Your task to perform on an android device: change notifications settings Image 0: 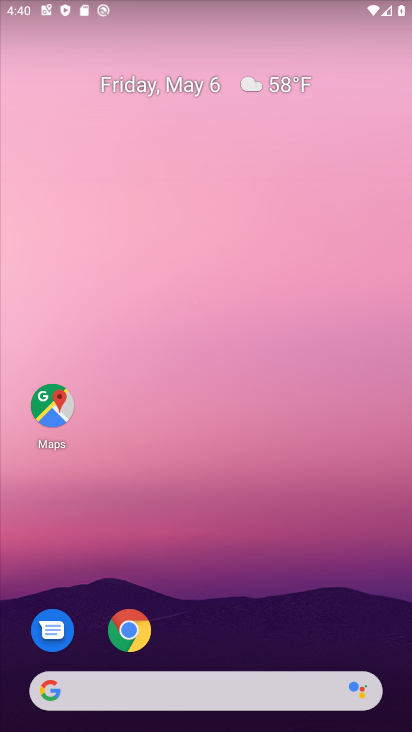
Step 0: drag from (243, 641) to (285, 41)
Your task to perform on an android device: change notifications settings Image 1: 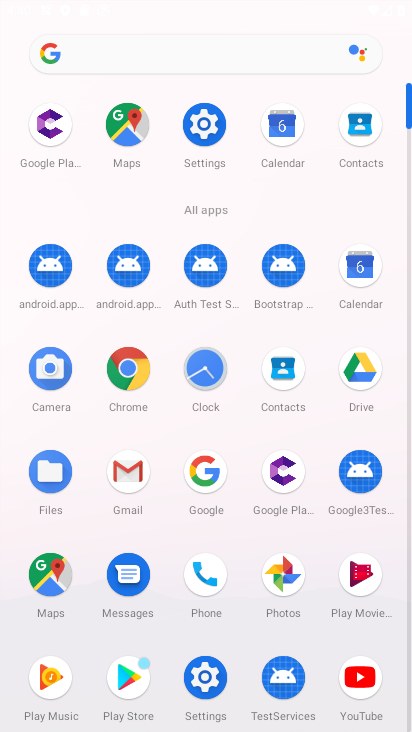
Step 1: click (211, 676)
Your task to perform on an android device: change notifications settings Image 2: 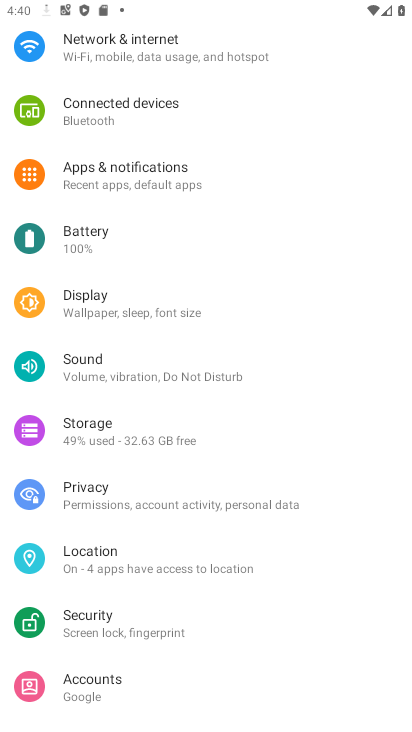
Step 2: click (182, 186)
Your task to perform on an android device: change notifications settings Image 3: 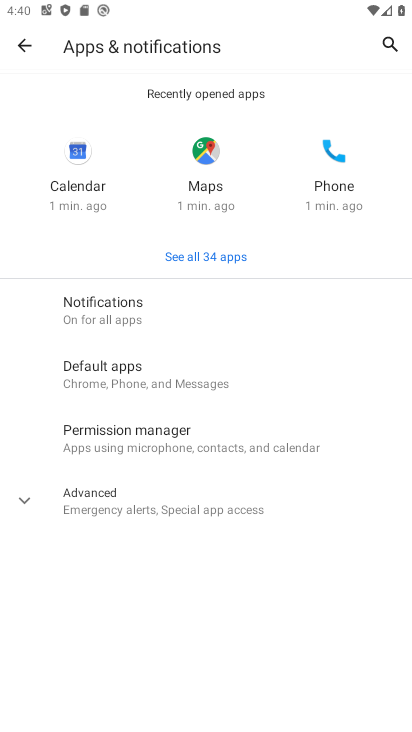
Step 3: click (160, 304)
Your task to perform on an android device: change notifications settings Image 4: 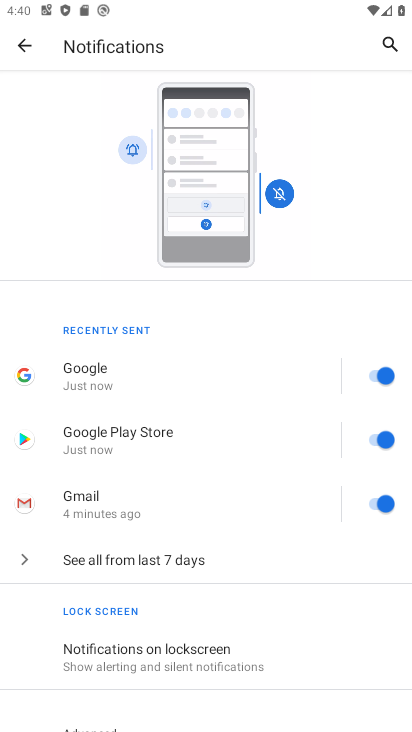
Step 4: click (175, 556)
Your task to perform on an android device: change notifications settings Image 5: 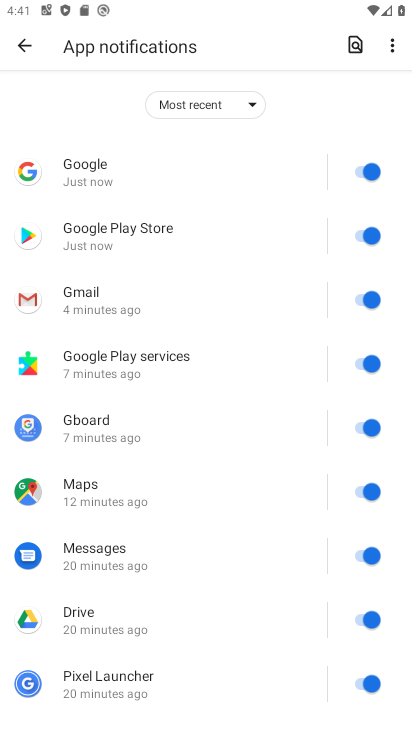
Step 5: click (365, 184)
Your task to perform on an android device: change notifications settings Image 6: 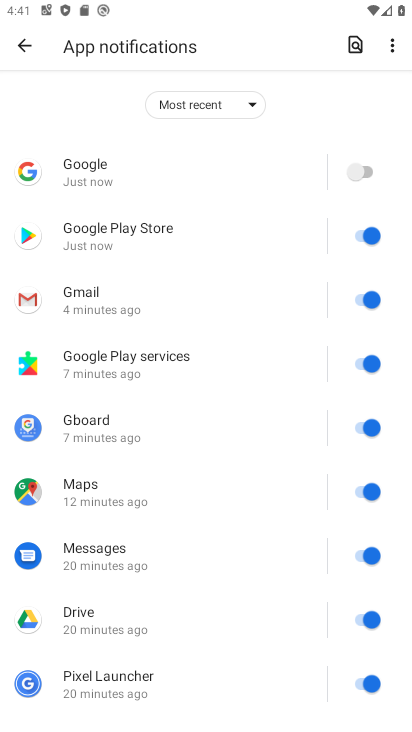
Step 6: click (354, 234)
Your task to perform on an android device: change notifications settings Image 7: 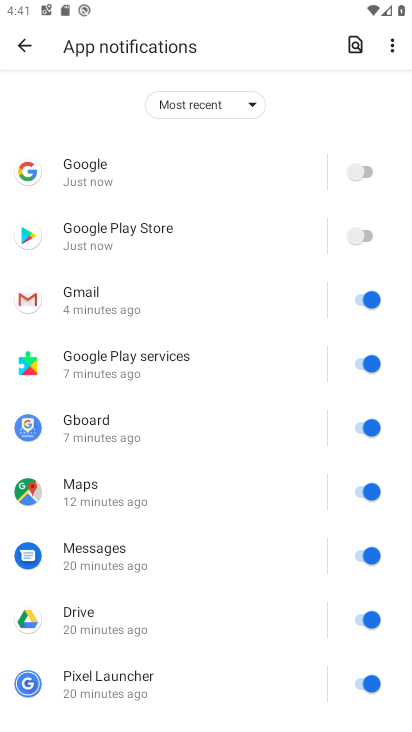
Step 7: click (355, 305)
Your task to perform on an android device: change notifications settings Image 8: 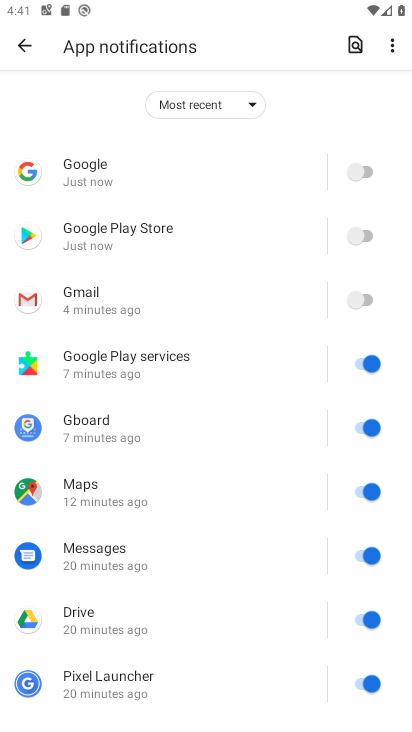
Step 8: click (374, 360)
Your task to perform on an android device: change notifications settings Image 9: 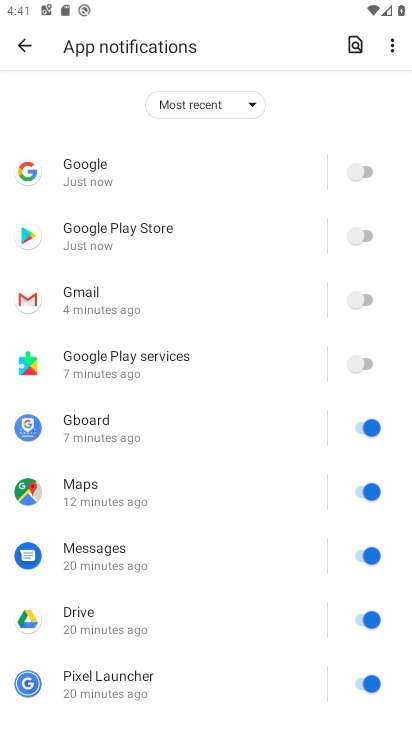
Step 9: click (366, 434)
Your task to perform on an android device: change notifications settings Image 10: 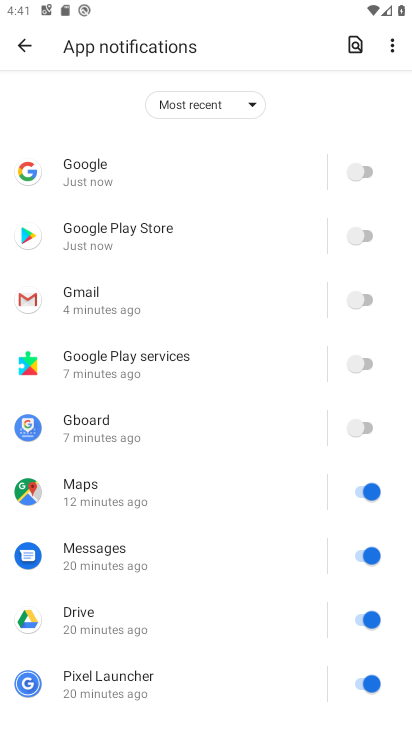
Step 10: click (362, 492)
Your task to perform on an android device: change notifications settings Image 11: 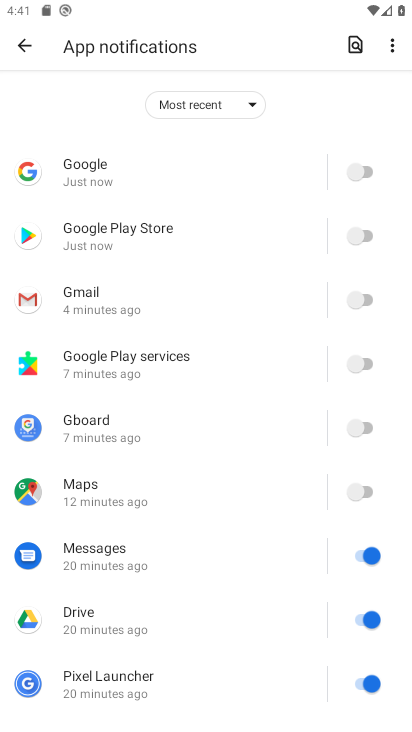
Step 11: click (363, 556)
Your task to perform on an android device: change notifications settings Image 12: 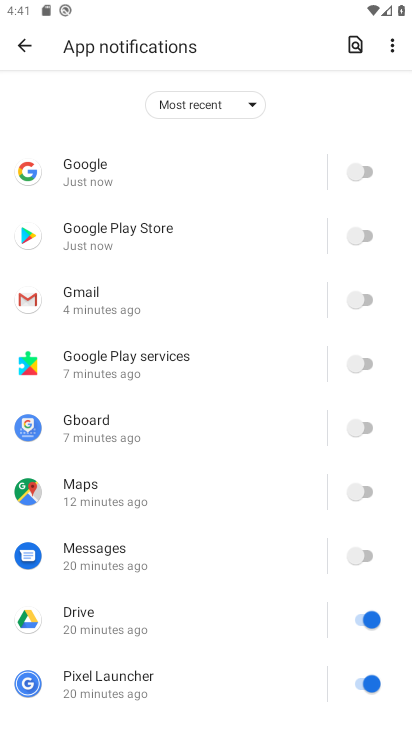
Step 12: click (367, 621)
Your task to perform on an android device: change notifications settings Image 13: 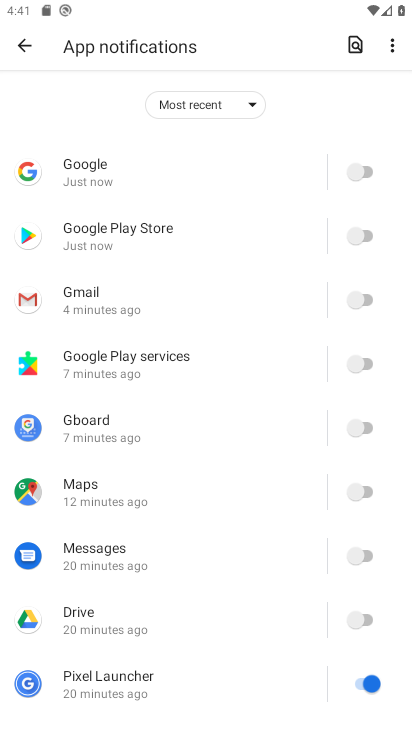
Step 13: click (365, 682)
Your task to perform on an android device: change notifications settings Image 14: 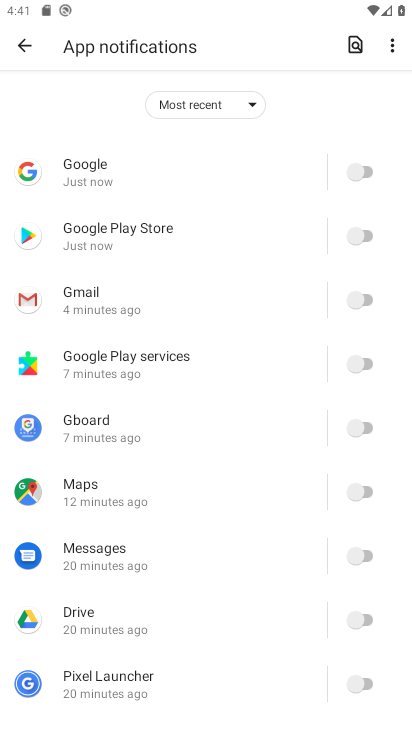
Step 14: drag from (262, 697) to (319, 209)
Your task to perform on an android device: change notifications settings Image 15: 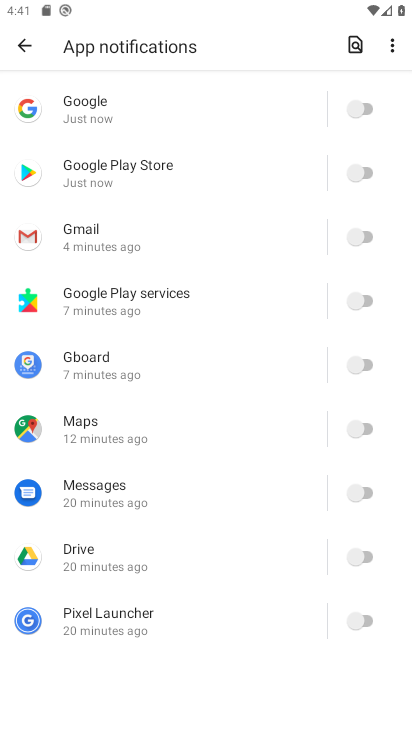
Step 15: click (33, 41)
Your task to perform on an android device: change notifications settings Image 16: 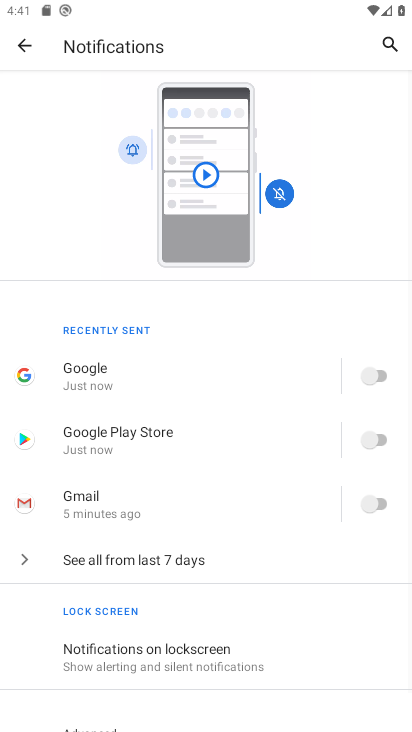
Step 16: click (159, 655)
Your task to perform on an android device: change notifications settings Image 17: 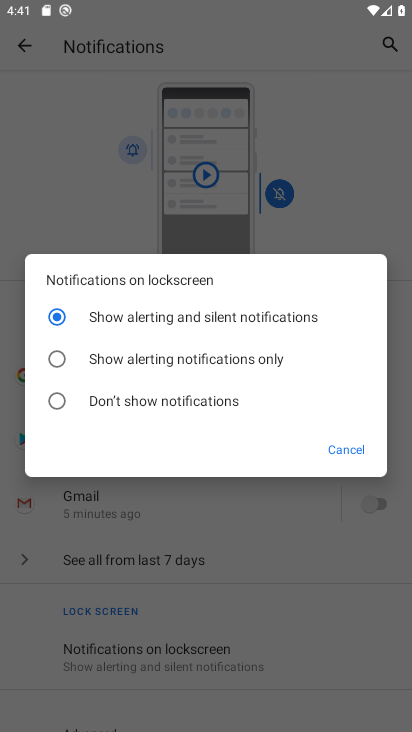
Step 17: click (186, 347)
Your task to perform on an android device: change notifications settings Image 18: 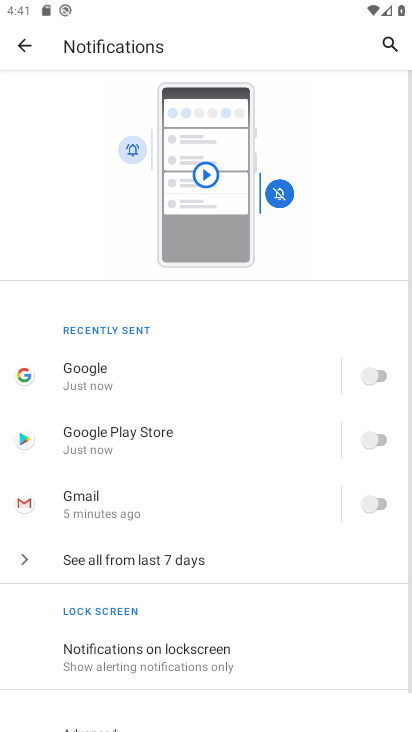
Step 18: drag from (165, 571) to (314, 67)
Your task to perform on an android device: change notifications settings Image 19: 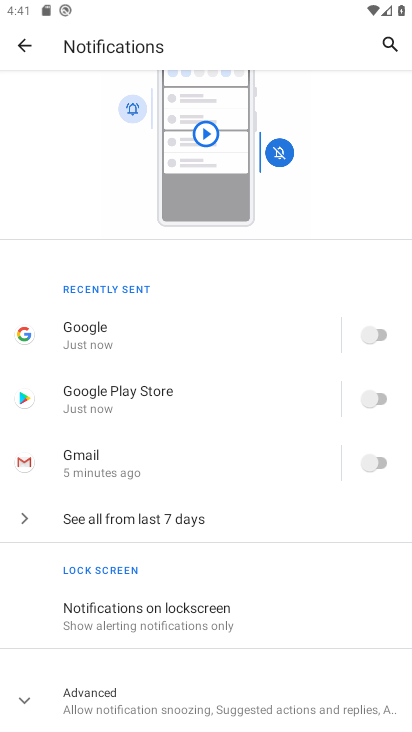
Step 19: click (177, 689)
Your task to perform on an android device: change notifications settings Image 20: 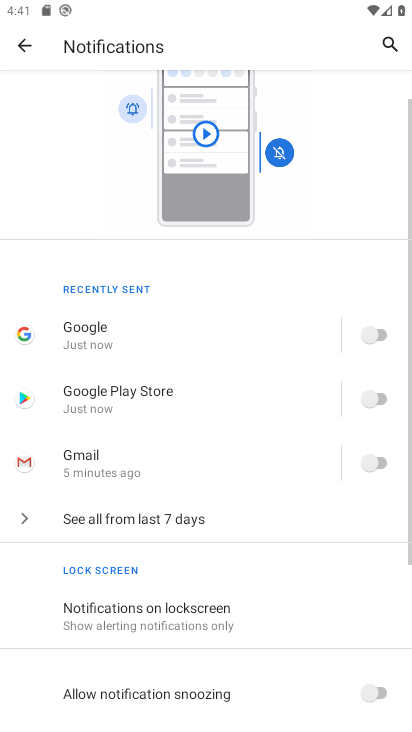
Step 20: drag from (300, 619) to (382, 214)
Your task to perform on an android device: change notifications settings Image 21: 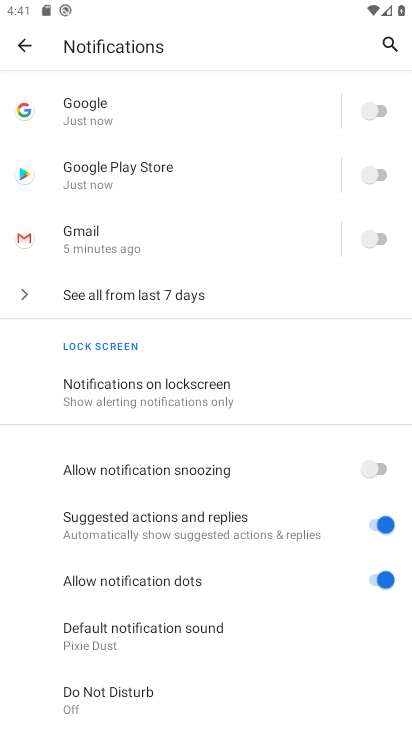
Step 21: click (381, 474)
Your task to perform on an android device: change notifications settings Image 22: 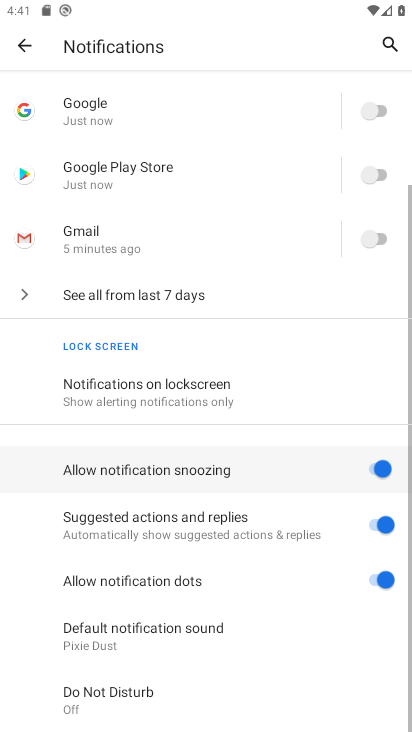
Step 22: click (391, 515)
Your task to perform on an android device: change notifications settings Image 23: 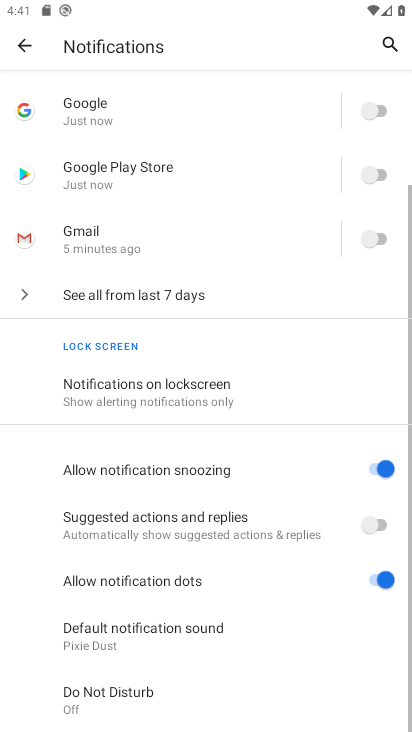
Step 23: click (374, 575)
Your task to perform on an android device: change notifications settings Image 24: 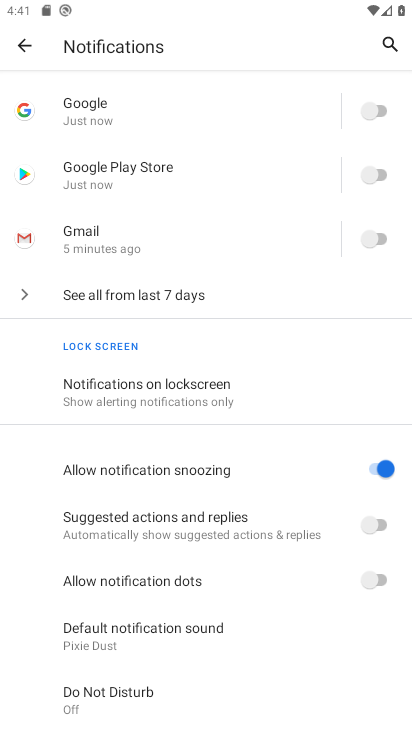
Step 24: task complete